Your task to perform on an android device: open app "Facebook" Image 0: 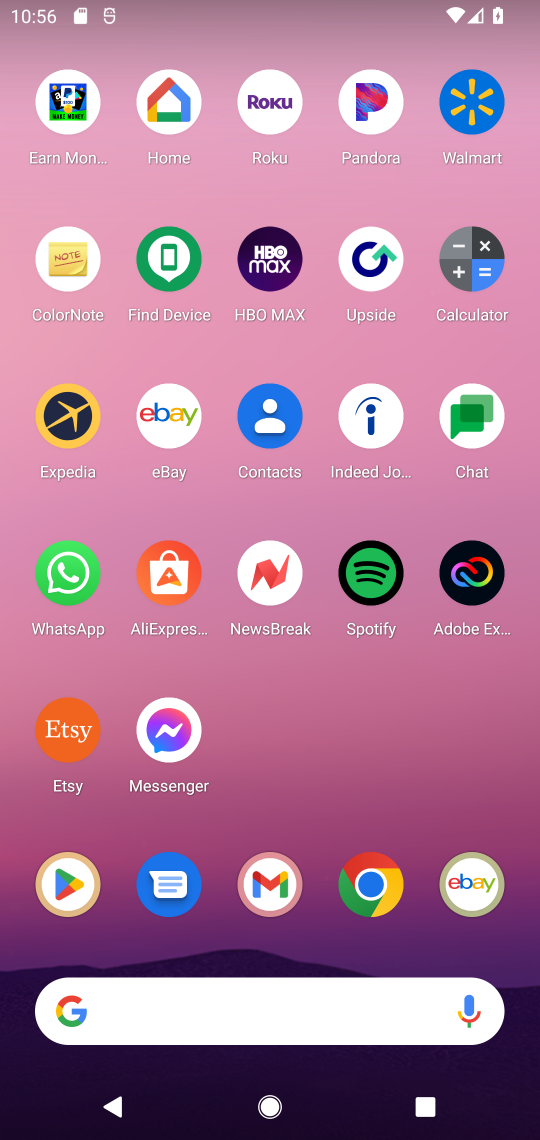
Step 0: click (59, 887)
Your task to perform on an android device: open app "Facebook" Image 1: 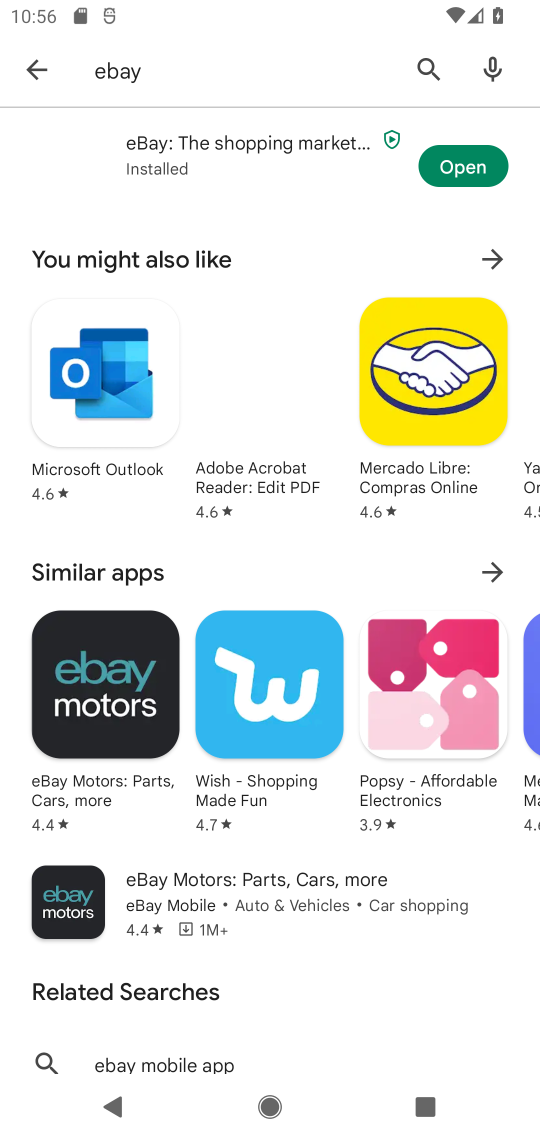
Step 1: click (203, 76)
Your task to perform on an android device: open app "Facebook" Image 2: 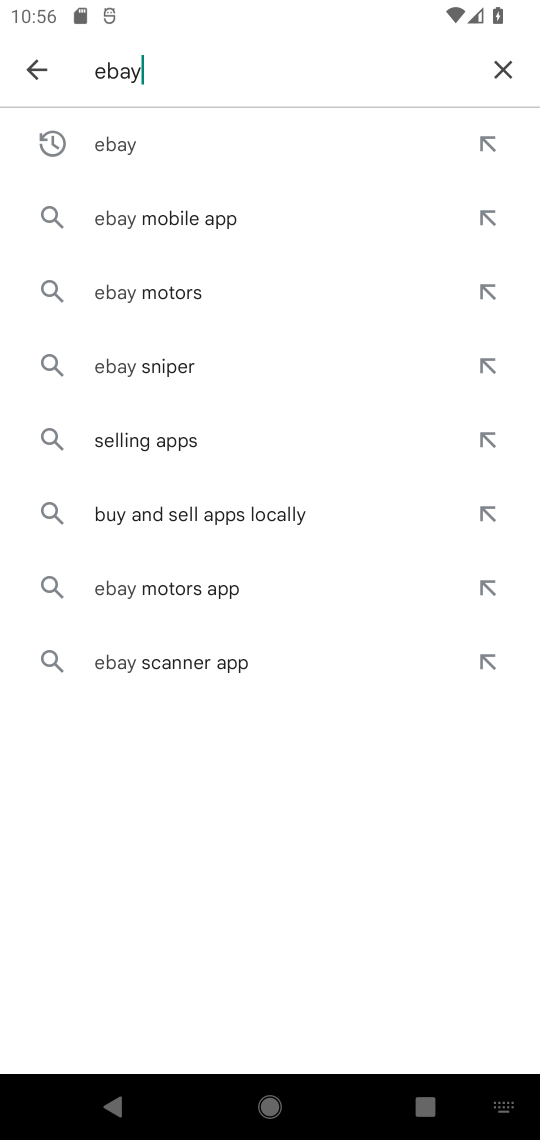
Step 2: click (510, 67)
Your task to perform on an android device: open app "Facebook" Image 3: 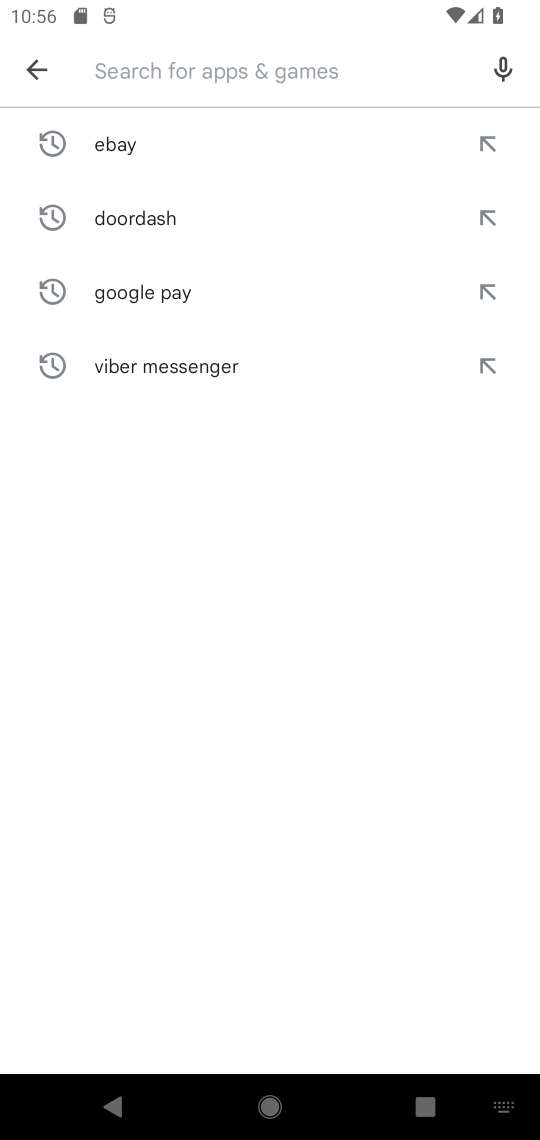
Step 3: type "facebook"
Your task to perform on an android device: open app "Facebook" Image 4: 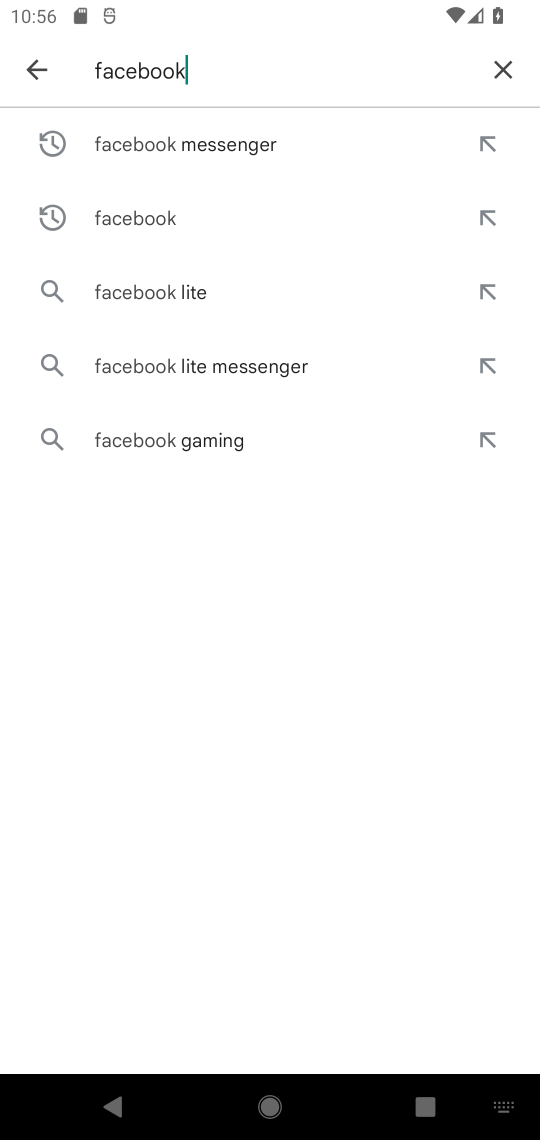
Step 4: click (149, 226)
Your task to perform on an android device: open app "Facebook" Image 5: 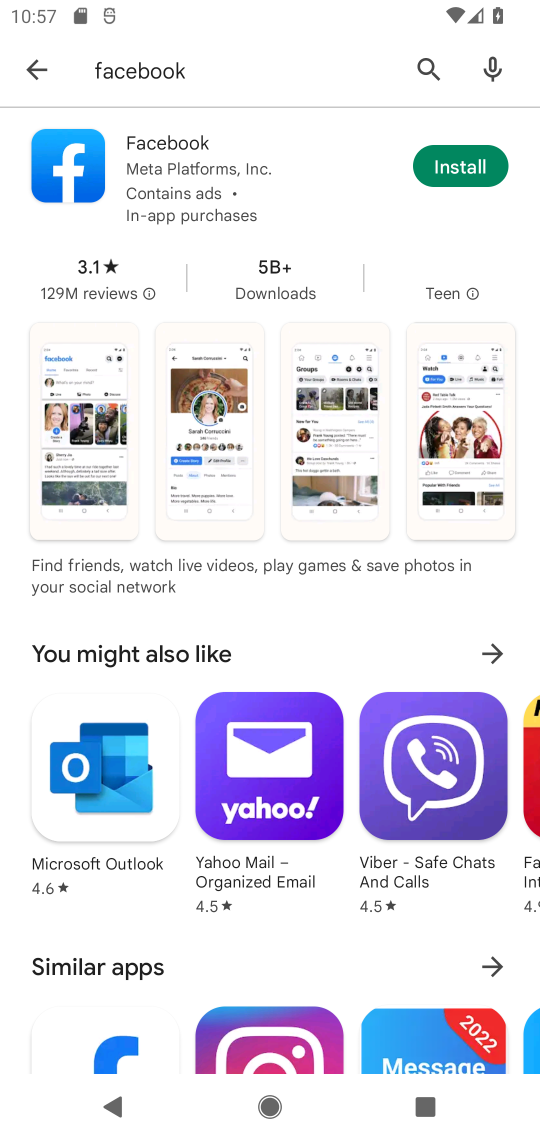
Step 5: task complete